Your task to perform on an android device: open sync settings in chrome Image 0: 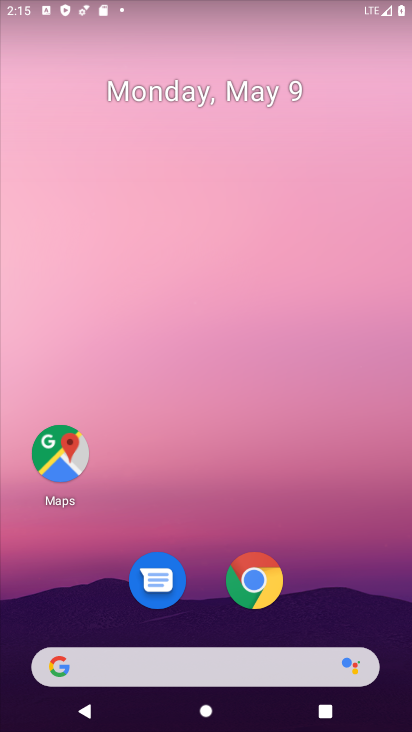
Step 0: drag from (328, 578) to (301, 28)
Your task to perform on an android device: open sync settings in chrome Image 1: 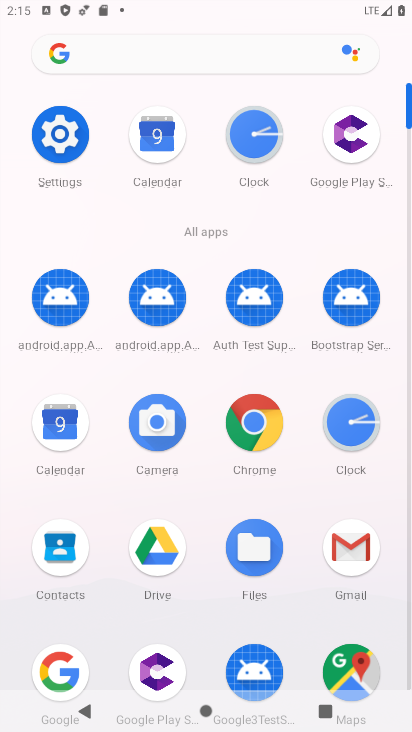
Step 1: click (249, 432)
Your task to perform on an android device: open sync settings in chrome Image 2: 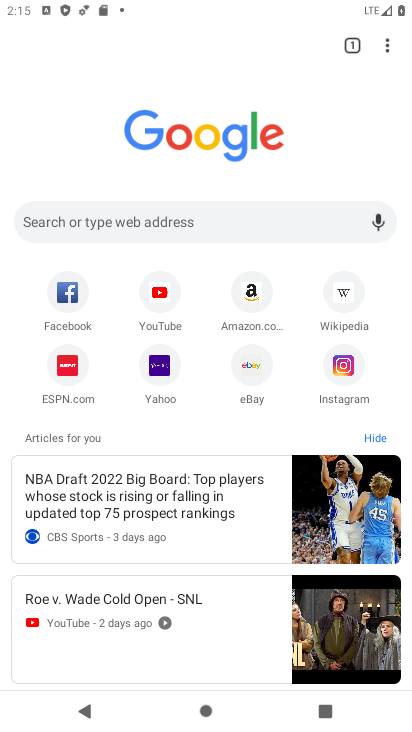
Step 2: click (381, 44)
Your task to perform on an android device: open sync settings in chrome Image 3: 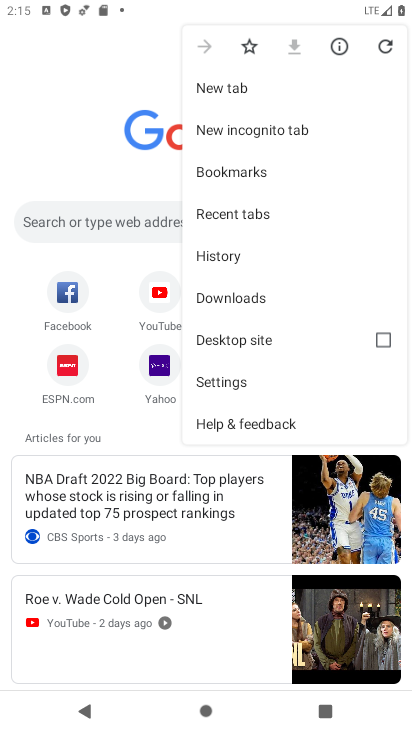
Step 3: click (265, 387)
Your task to perform on an android device: open sync settings in chrome Image 4: 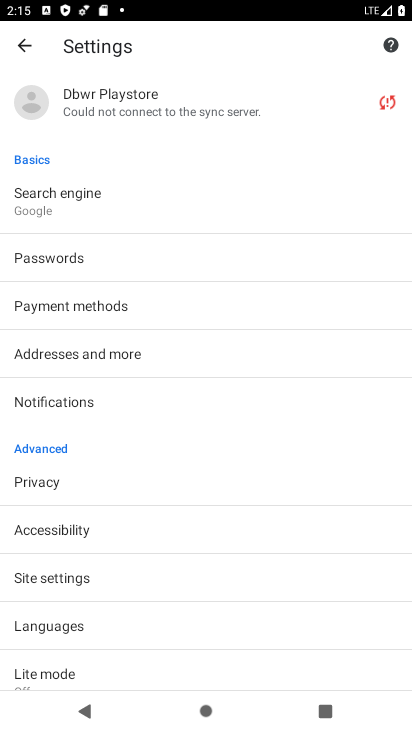
Step 4: click (78, 577)
Your task to perform on an android device: open sync settings in chrome Image 5: 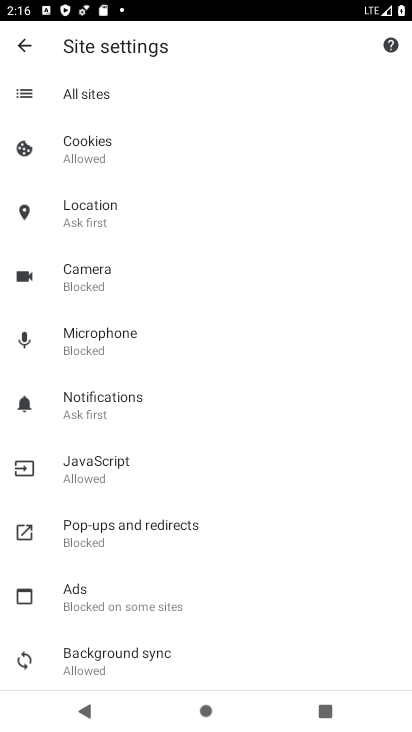
Step 5: click (154, 640)
Your task to perform on an android device: open sync settings in chrome Image 6: 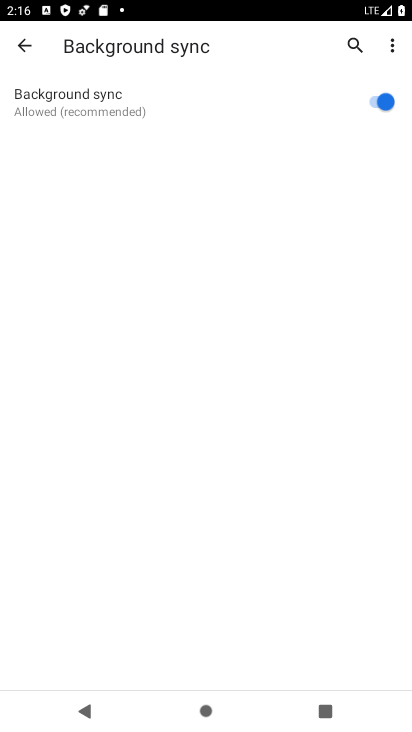
Step 6: task complete